Your task to perform on an android device: Go to notification settings Image 0: 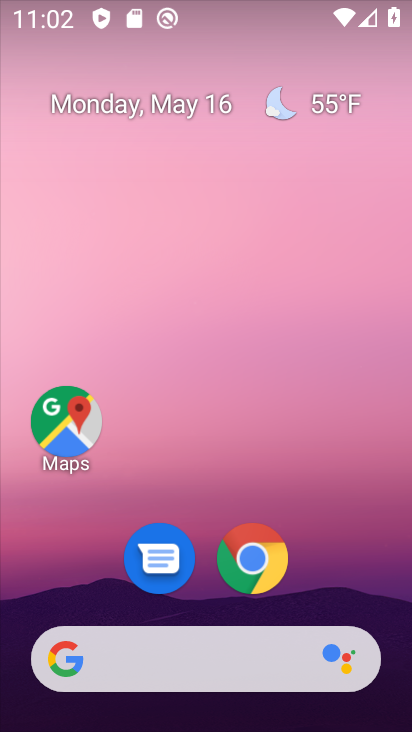
Step 0: drag from (409, 553) to (336, 126)
Your task to perform on an android device: Go to notification settings Image 1: 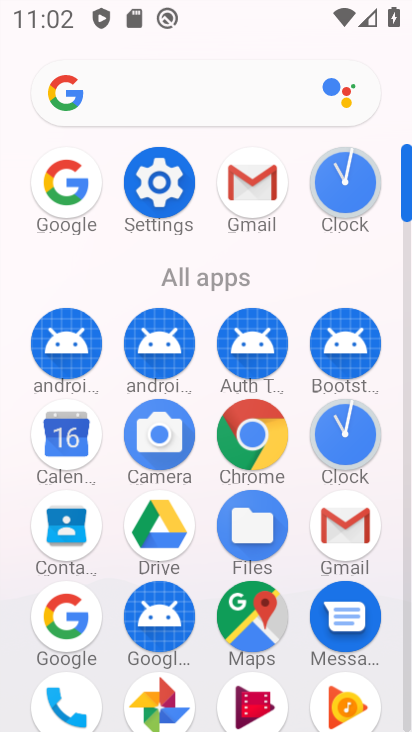
Step 1: click (159, 189)
Your task to perform on an android device: Go to notification settings Image 2: 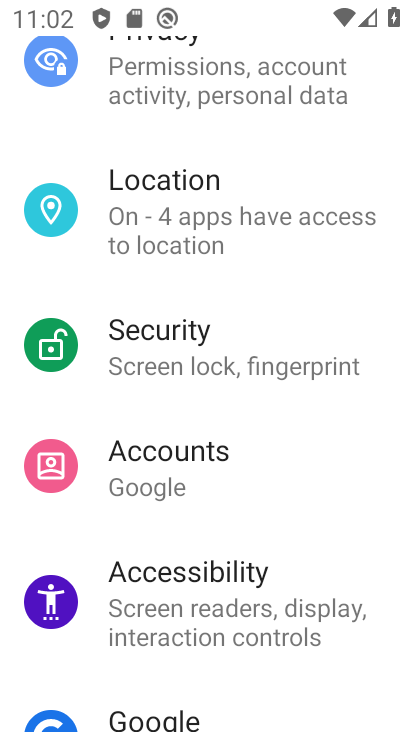
Step 2: drag from (224, 275) to (254, 706)
Your task to perform on an android device: Go to notification settings Image 3: 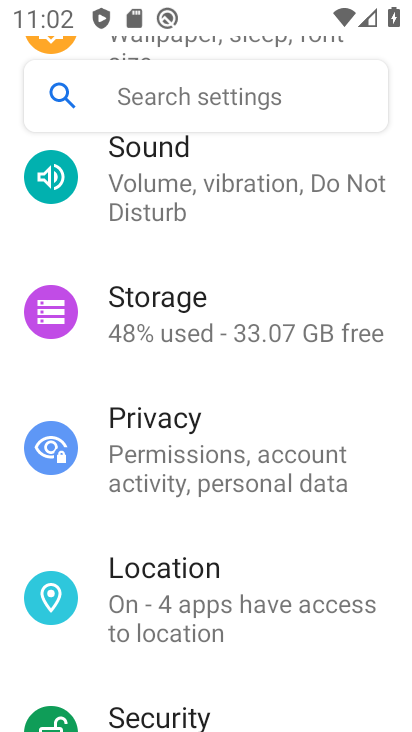
Step 3: drag from (192, 237) to (189, 644)
Your task to perform on an android device: Go to notification settings Image 4: 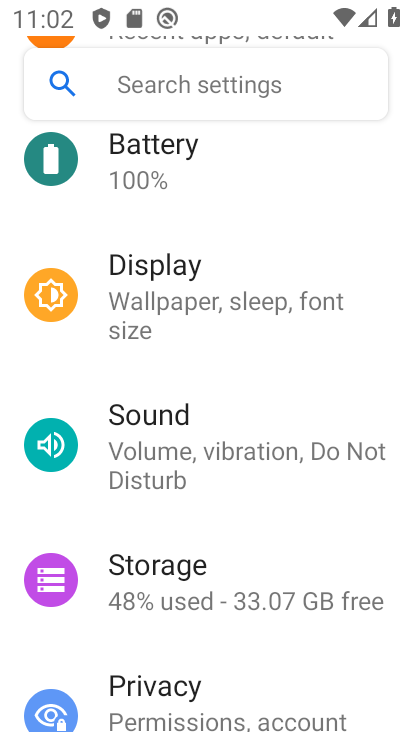
Step 4: drag from (202, 180) to (201, 704)
Your task to perform on an android device: Go to notification settings Image 5: 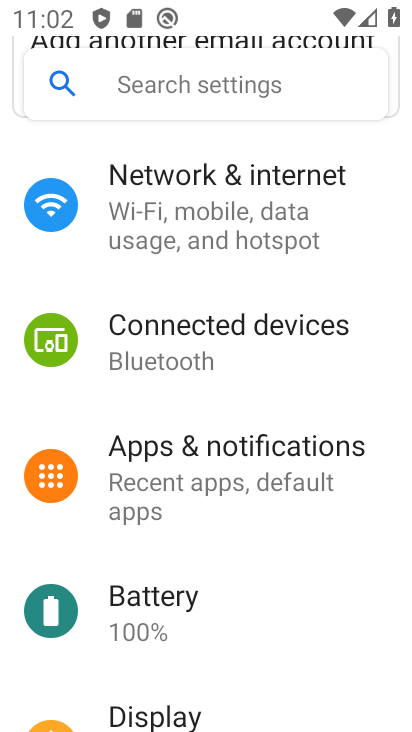
Step 5: click (203, 462)
Your task to perform on an android device: Go to notification settings Image 6: 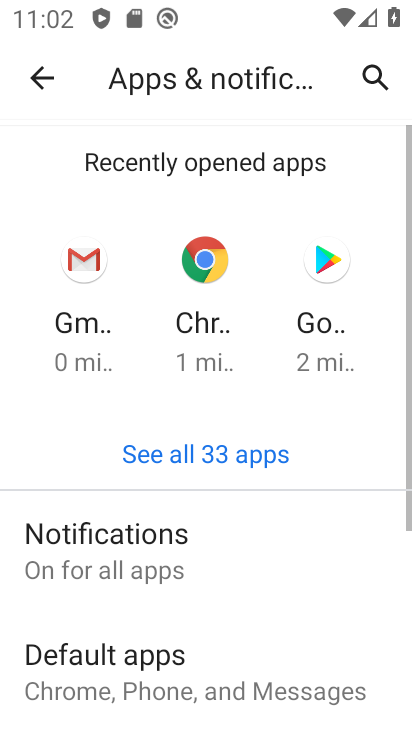
Step 6: click (126, 531)
Your task to perform on an android device: Go to notification settings Image 7: 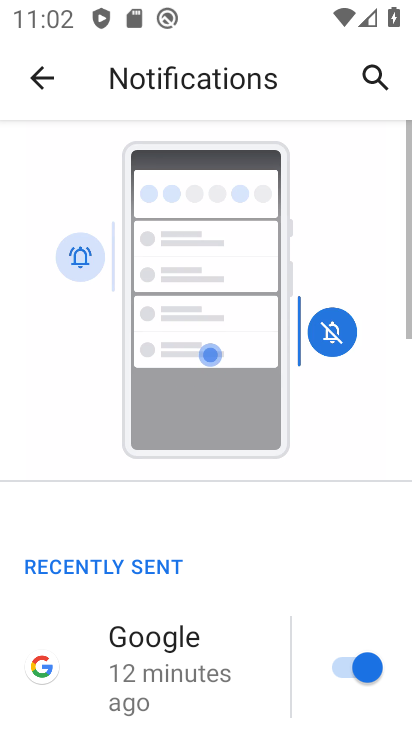
Step 7: drag from (188, 538) to (189, 1)
Your task to perform on an android device: Go to notification settings Image 8: 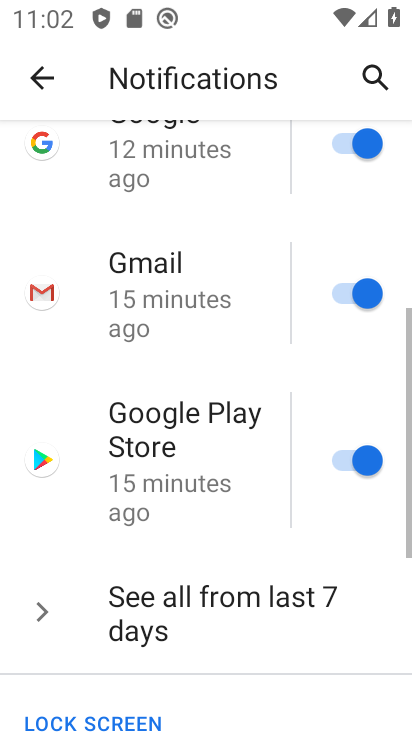
Step 8: drag from (226, 518) to (232, 73)
Your task to perform on an android device: Go to notification settings Image 9: 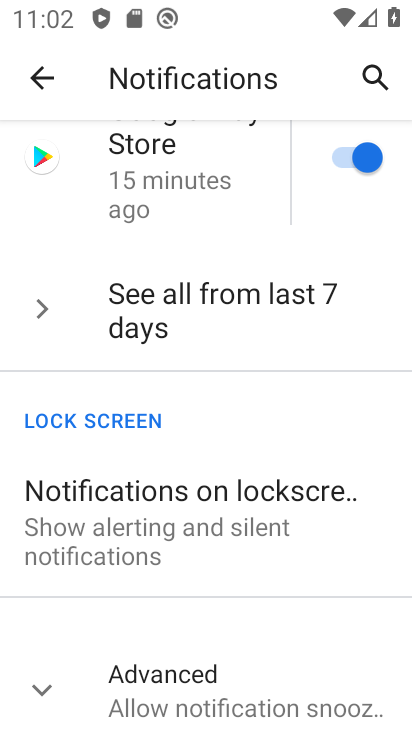
Step 9: drag from (201, 635) to (201, 198)
Your task to perform on an android device: Go to notification settings Image 10: 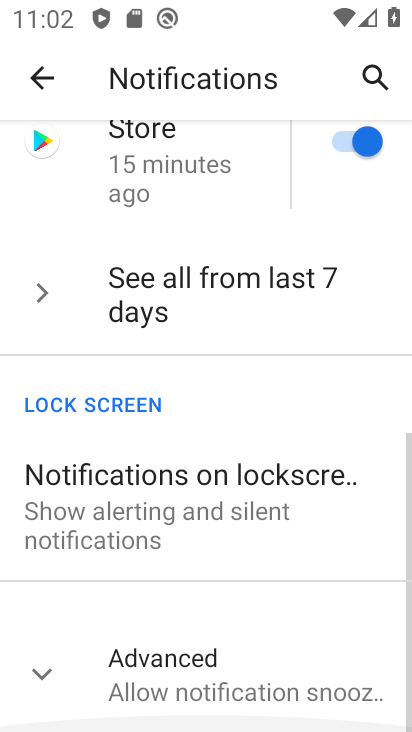
Step 10: click (198, 682)
Your task to perform on an android device: Go to notification settings Image 11: 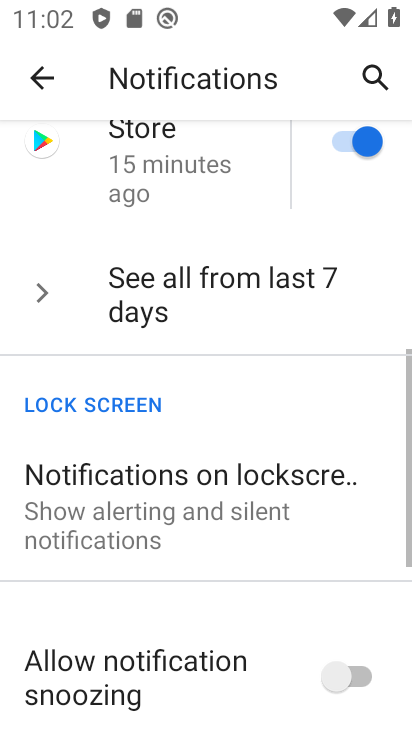
Step 11: drag from (285, 647) to (285, 214)
Your task to perform on an android device: Go to notification settings Image 12: 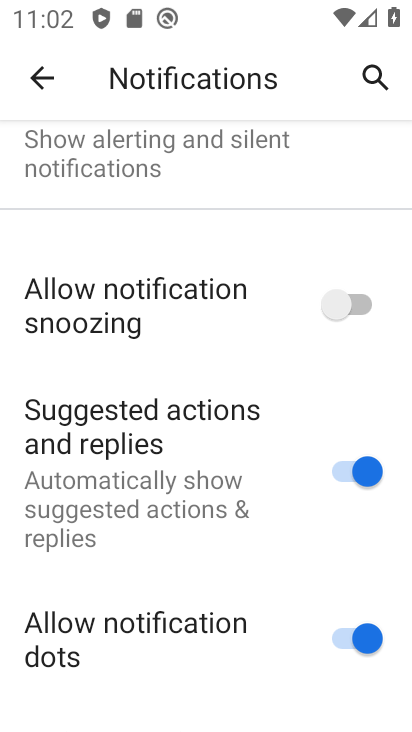
Step 12: click (339, 304)
Your task to perform on an android device: Go to notification settings Image 13: 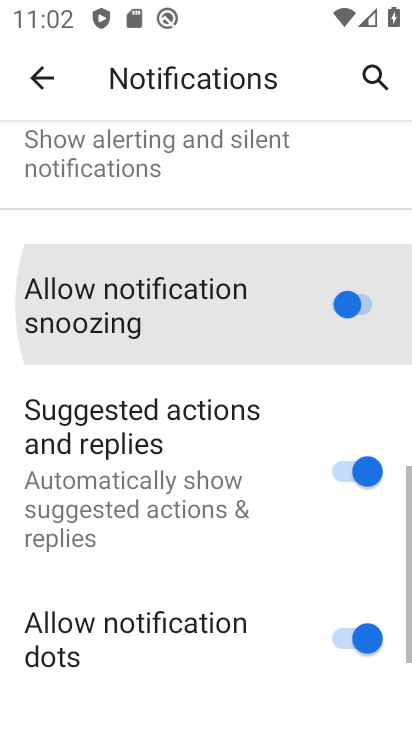
Step 13: click (366, 481)
Your task to perform on an android device: Go to notification settings Image 14: 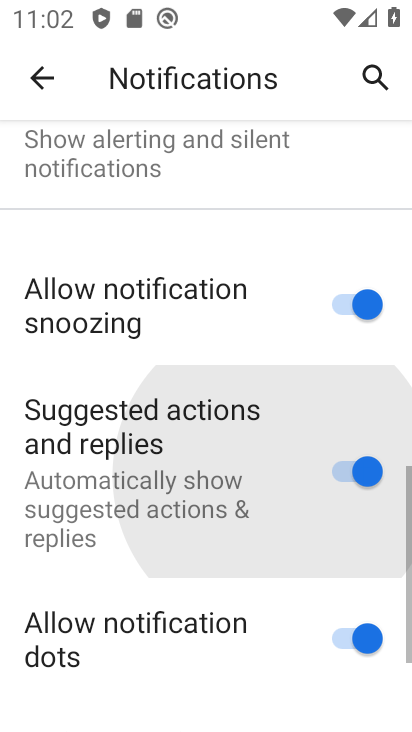
Step 14: drag from (370, 644) to (269, 231)
Your task to perform on an android device: Go to notification settings Image 15: 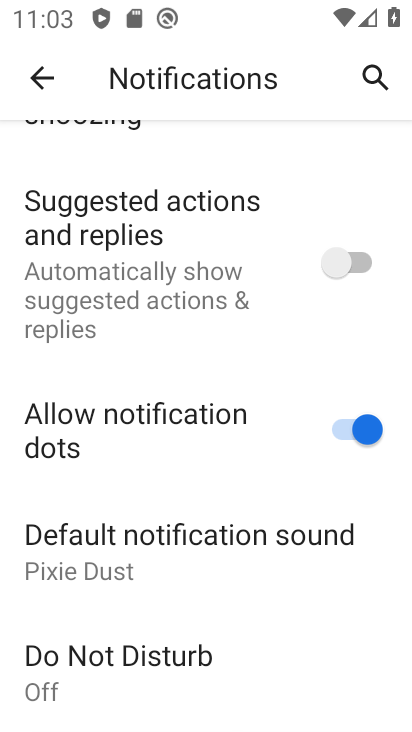
Step 15: click (362, 426)
Your task to perform on an android device: Go to notification settings Image 16: 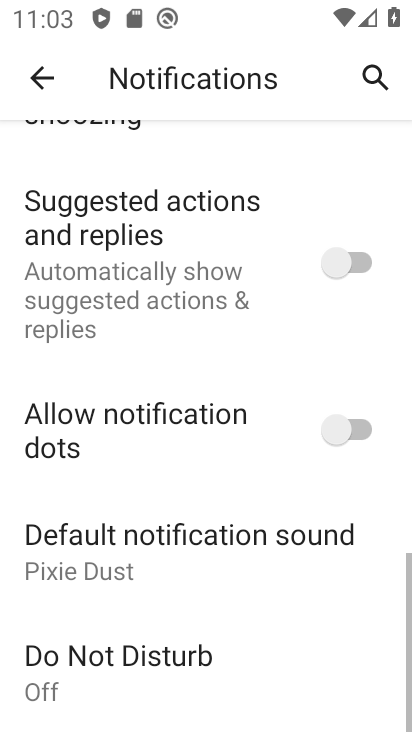
Step 16: task complete